Your task to perform on an android device: Open Google Chrome Image 0: 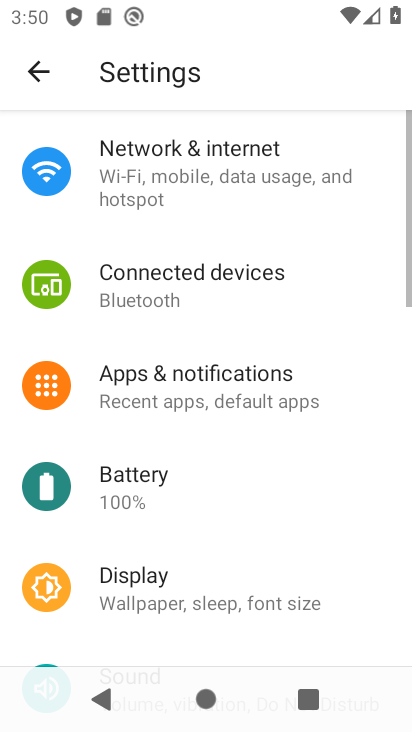
Step 0: press home button
Your task to perform on an android device: Open Google Chrome Image 1: 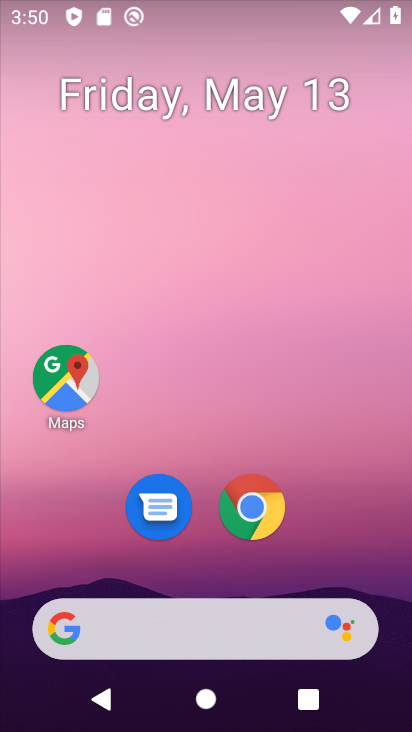
Step 1: click (253, 513)
Your task to perform on an android device: Open Google Chrome Image 2: 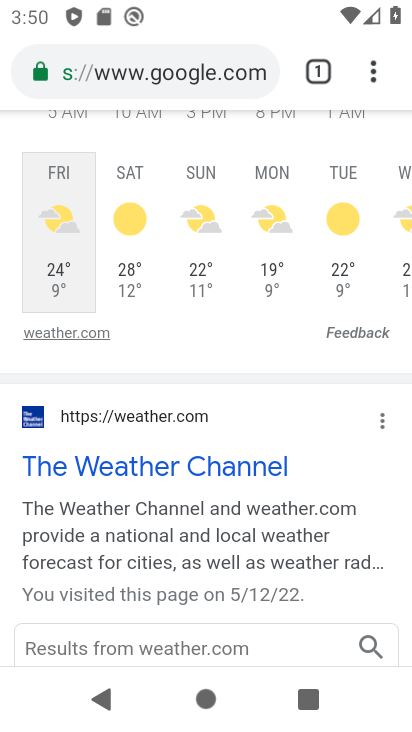
Step 2: task complete